Your task to perform on an android device: Open Google Image 0: 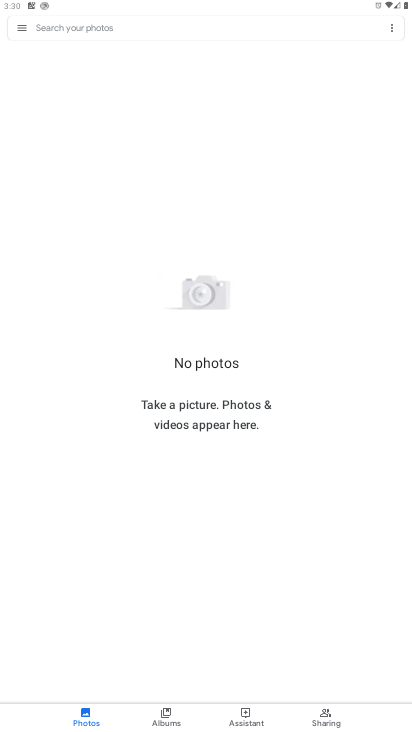
Step 0: press home button
Your task to perform on an android device: Open Google Image 1: 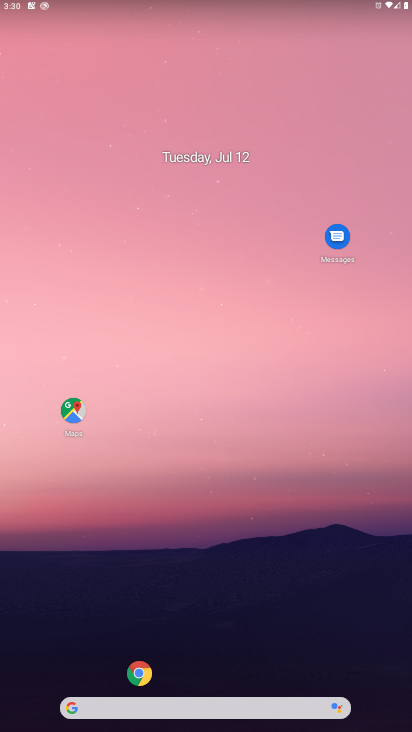
Step 1: click (132, 702)
Your task to perform on an android device: Open Google Image 2: 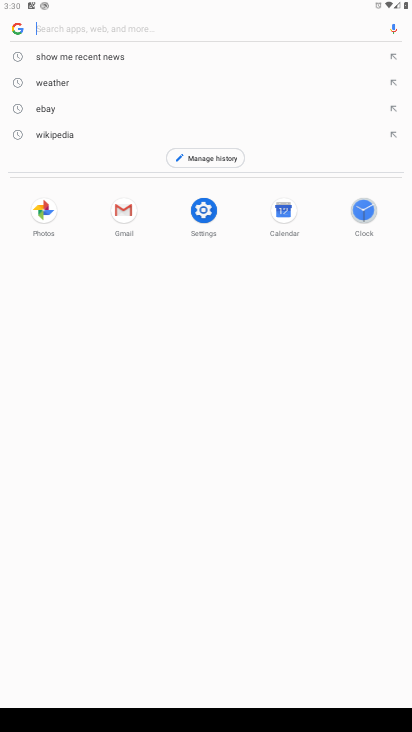
Step 2: task complete